Your task to perform on an android device: Open location settings Image 0: 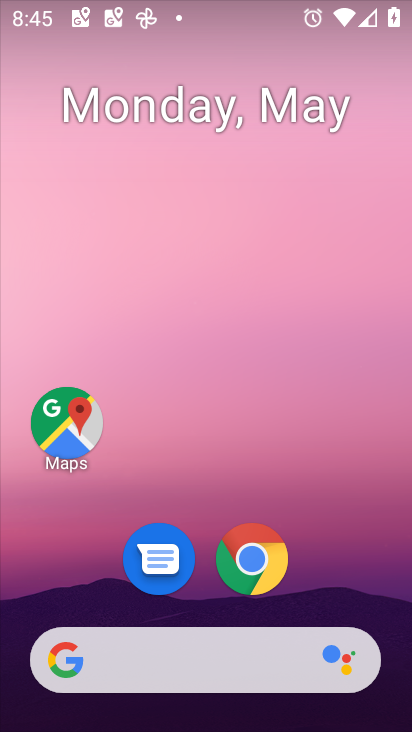
Step 0: drag from (395, 644) to (255, 39)
Your task to perform on an android device: Open location settings Image 1: 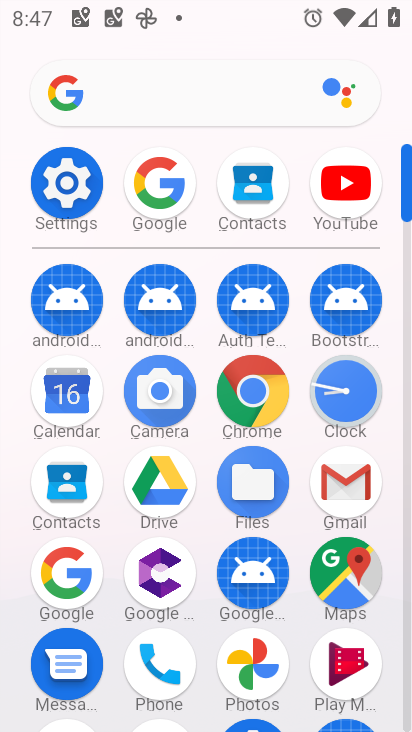
Step 1: click (67, 212)
Your task to perform on an android device: Open location settings Image 2: 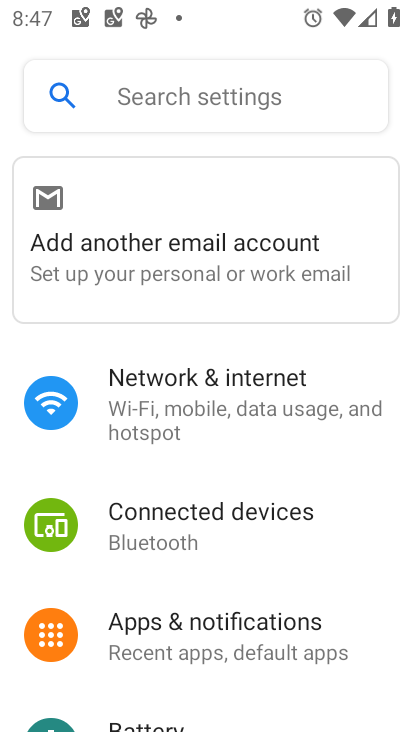
Step 2: drag from (202, 673) to (228, 108)
Your task to perform on an android device: Open location settings Image 3: 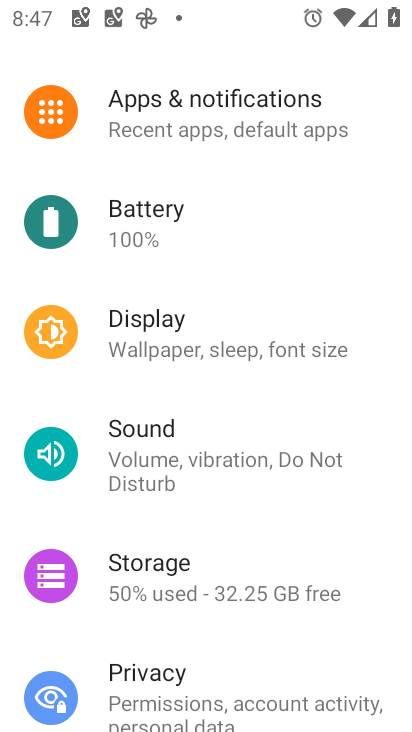
Step 3: drag from (173, 656) to (235, 178)
Your task to perform on an android device: Open location settings Image 4: 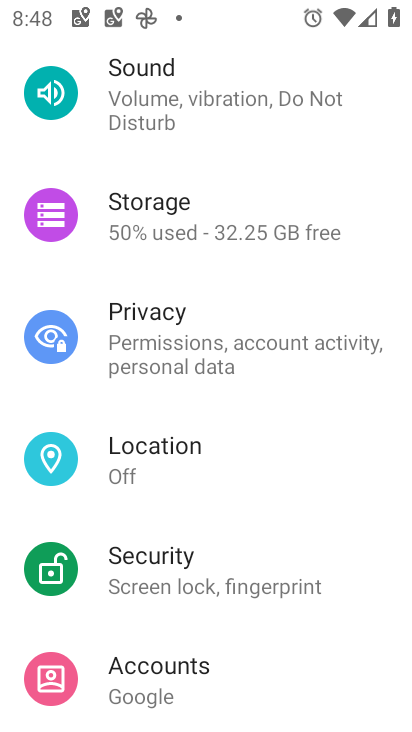
Step 4: click (196, 475)
Your task to perform on an android device: Open location settings Image 5: 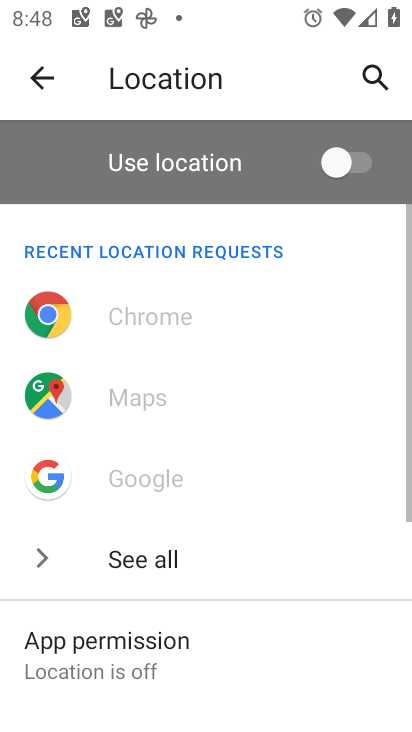
Step 5: task complete